Your task to perform on an android device: turn off wifi Image 0: 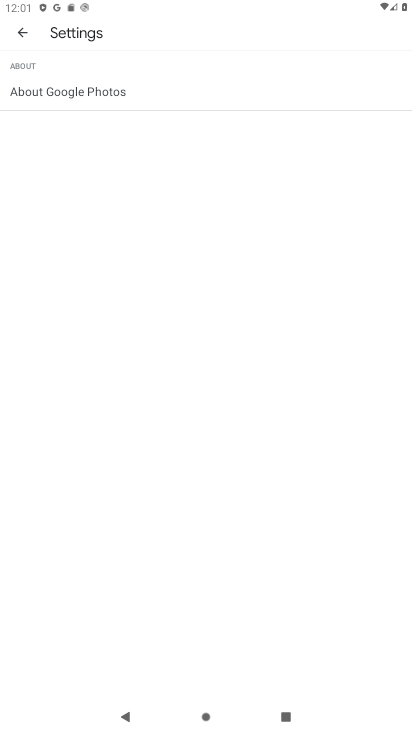
Step 0: press home button
Your task to perform on an android device: turn off wifi Image 1: 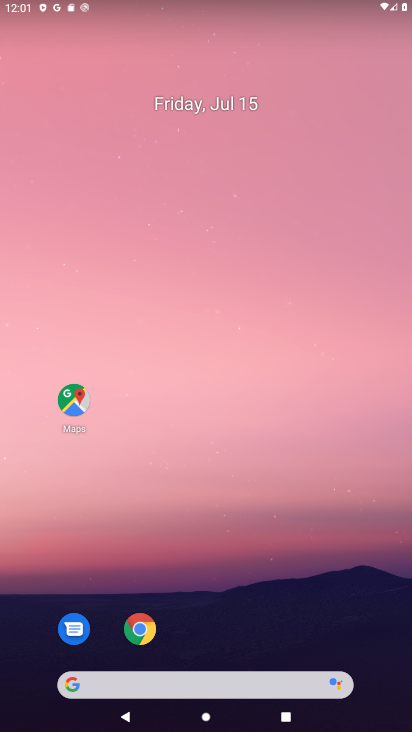
Step 1: drag from (79, 611) to (248, 192)
Your task to perform on an android device: turn off wifi Image 2: 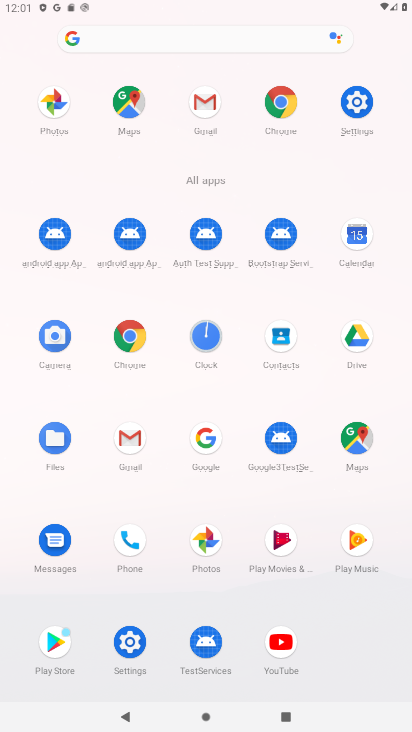
Step 2: click (119, 647)
Your task to perform on an android device: turn off wifi Image 3: 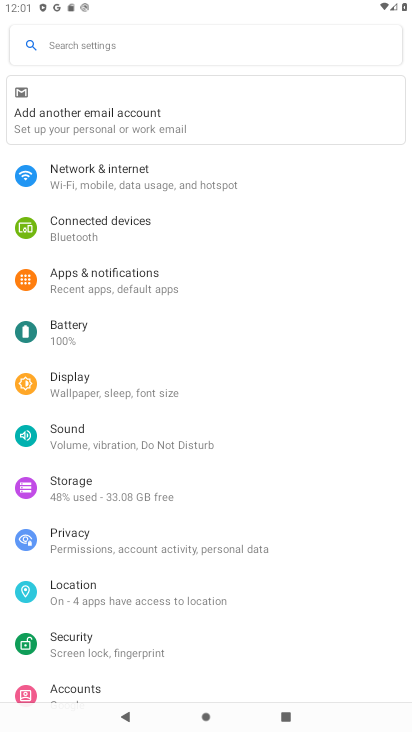
Step 3: click (111, 170)
Your task to perform on an android device: turn off wifi Image 4: 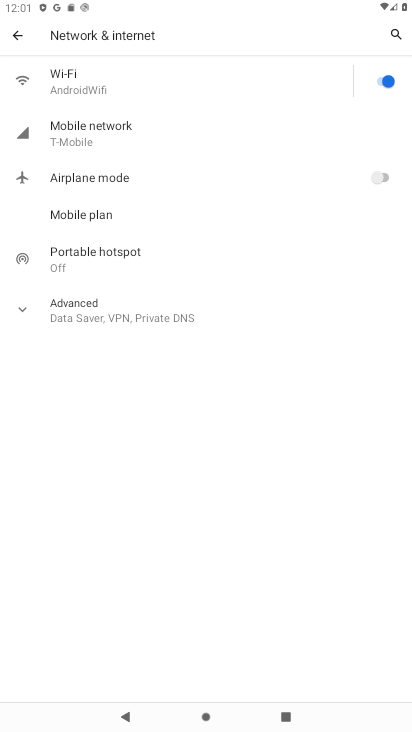
Step 4: click (384, 73)
Your task to perform on an android device: turn off wifi Image 5: 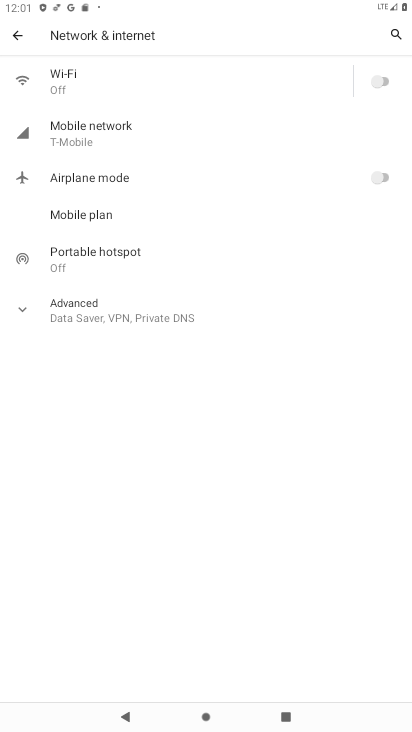
Step 5: task complete